Your task to perform on an android device: Search for a 24-inch cordless drill. Image 0: 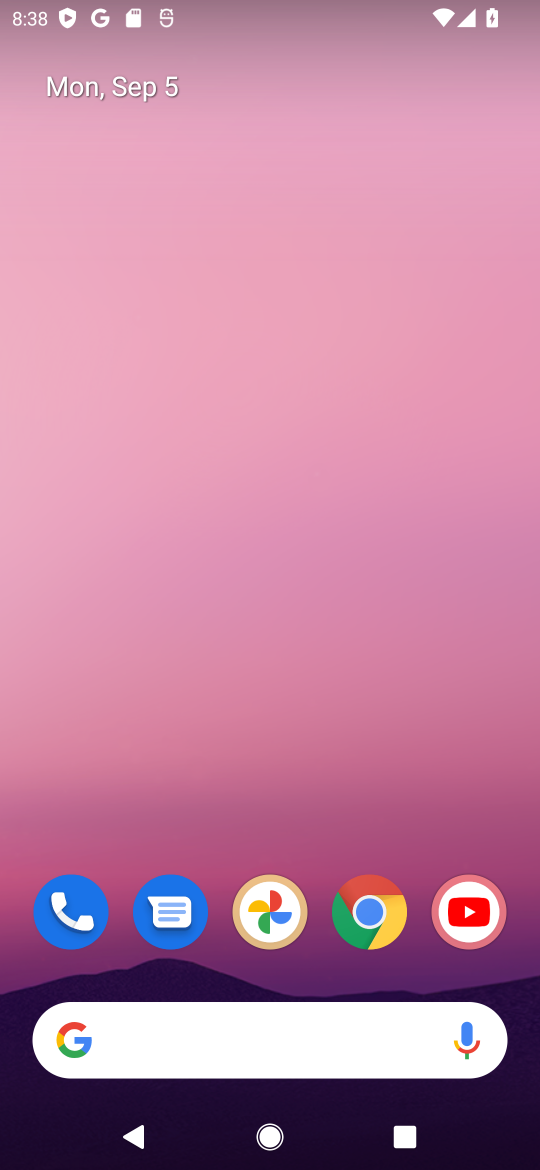
Step 0: click (357, 909)
Your task to perform on an android device: Search for a 24-inch cordless drill. Image 1: 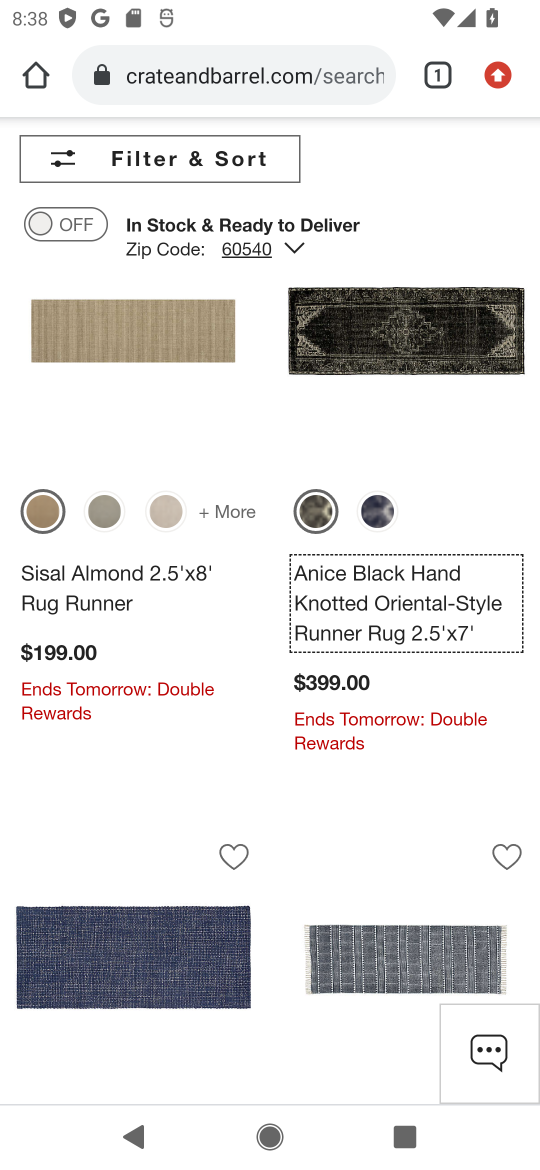
Step 1: click (277, 85)
Your task to perform on an android device: Search for a 24-inch cordless drill. Image 2: 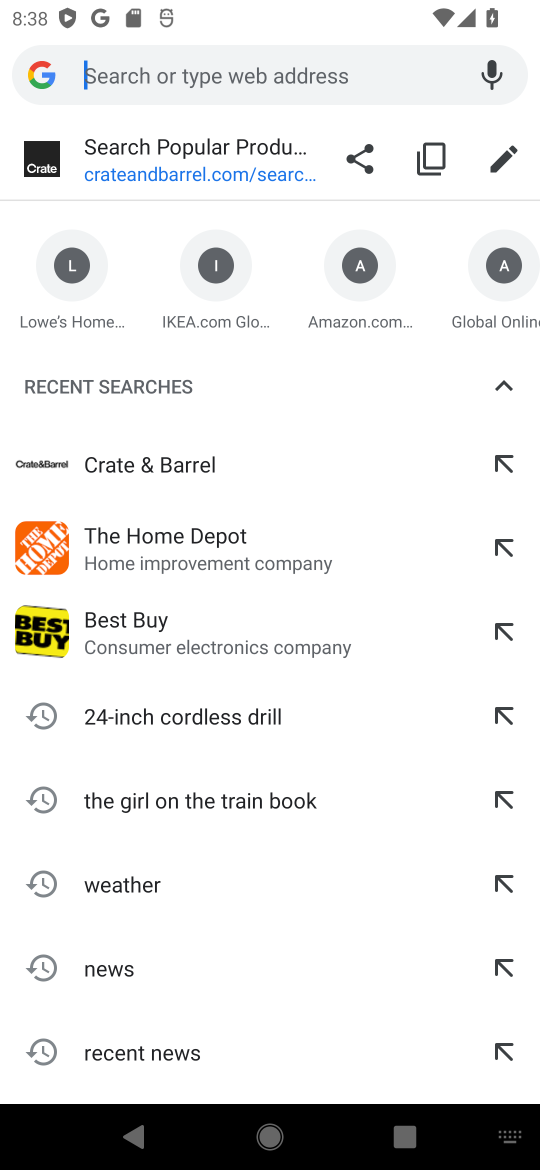
Step 2: type "24-inch cordless drill"
Your task to perform on an android device: Search for a 24-inch cordless drill. Image 3: 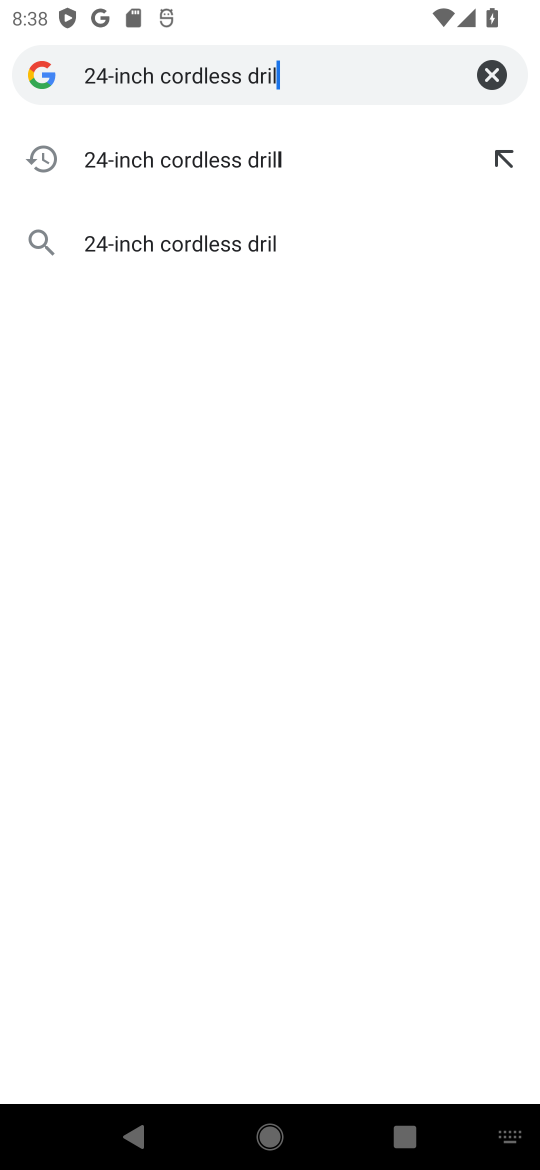
Step 3: type ""
Your task to perform on an android device: Search for a 24-inch cordless drill. Image 4: 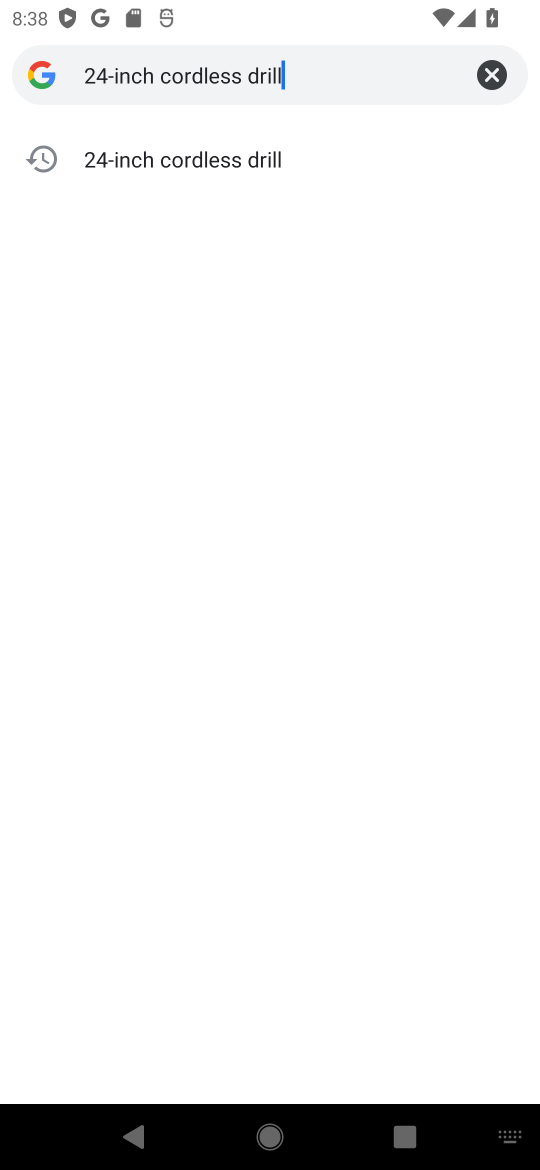
Step 4: press enter
Your task to perform on an android device: Search for a 24-inch cordless drill. Image 5: 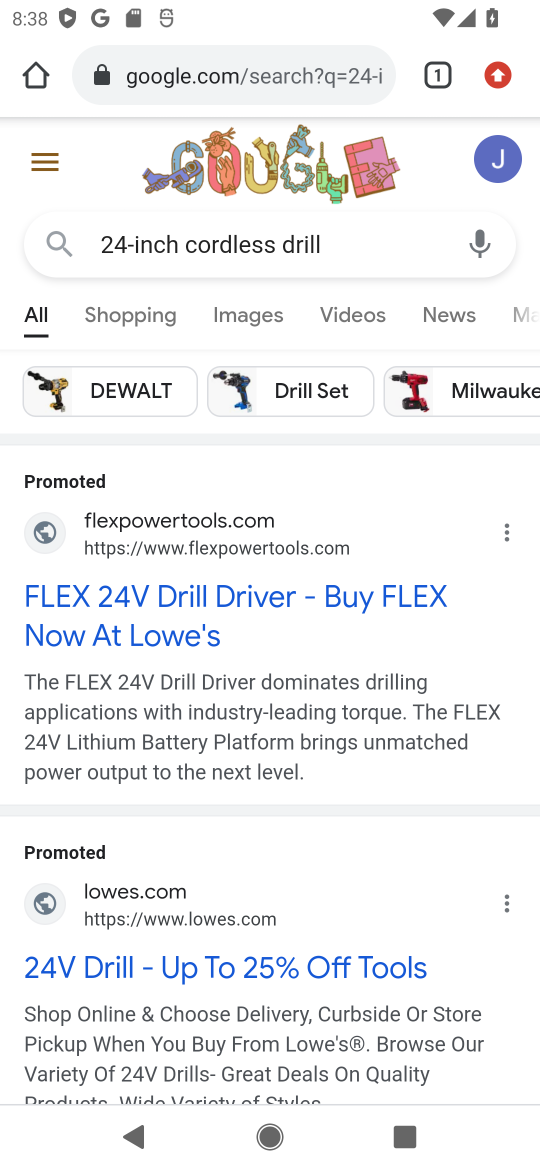
Step 5: task complete